Your task to perform on an android device: Show me the alarms in the clock app Image 0: 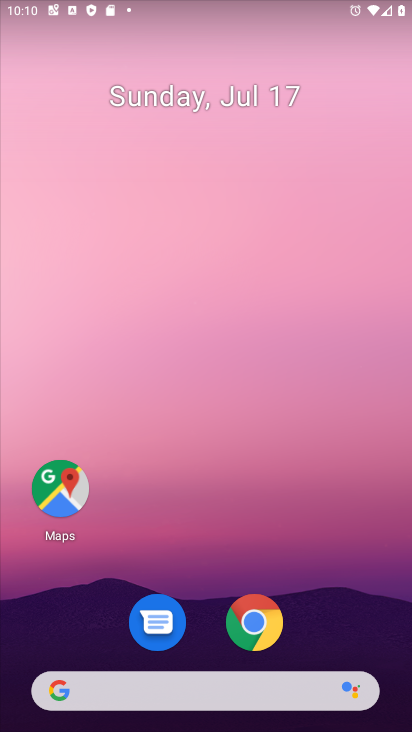
Step 0: drag from (205, 715) to (326, 64)
Your task to perform on an android device: Show me the alarms in the clock app Image 1: 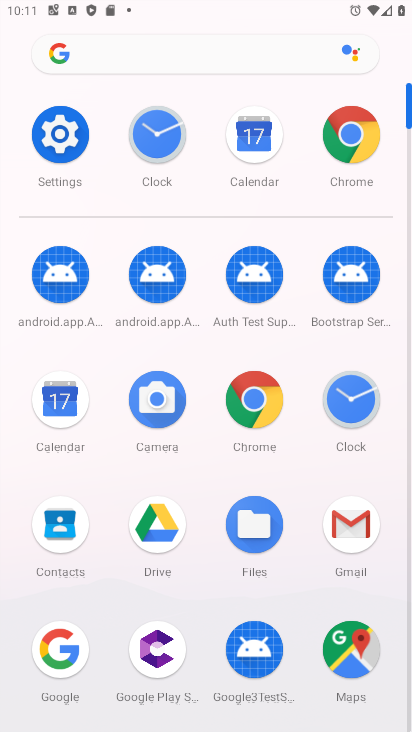
Step 1: click (351, 394)
Your task to perform on an android device: Show me the alarms in the clock app Image 2: 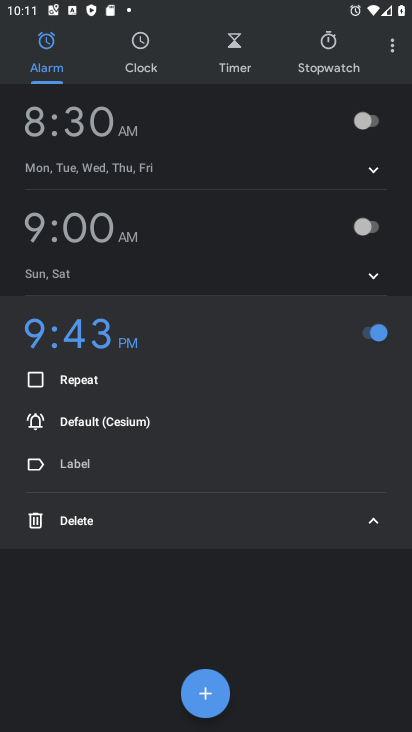
Step 2: task complete